Your task to perform on an android device: check google app version Image 0: 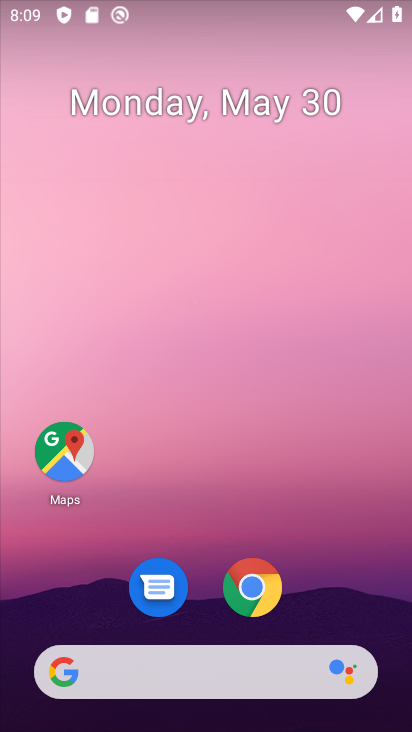
Step 0: click (265, 591)
Your task to perform on an android device: check google app version Image 1: 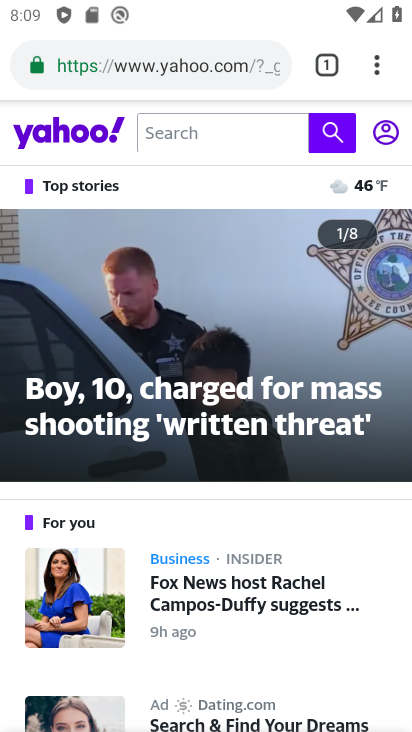
Step 1: click (380, 67)
Your task to perform on an android device: check google app version Image 2: 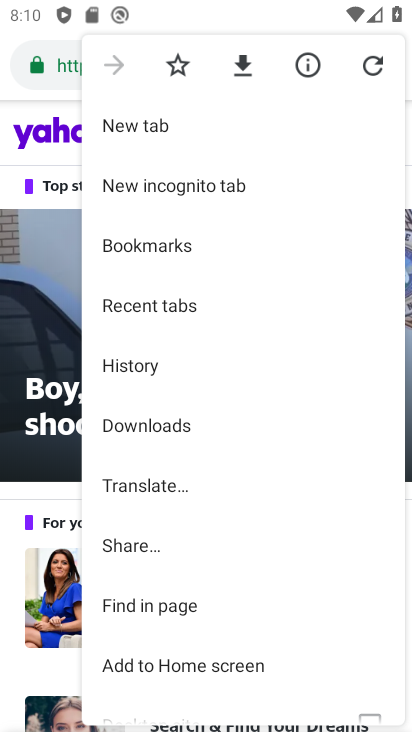
Step 2: task complete